Your task to perform on an android device: Open the calendar and show me this week's events? Image 0: 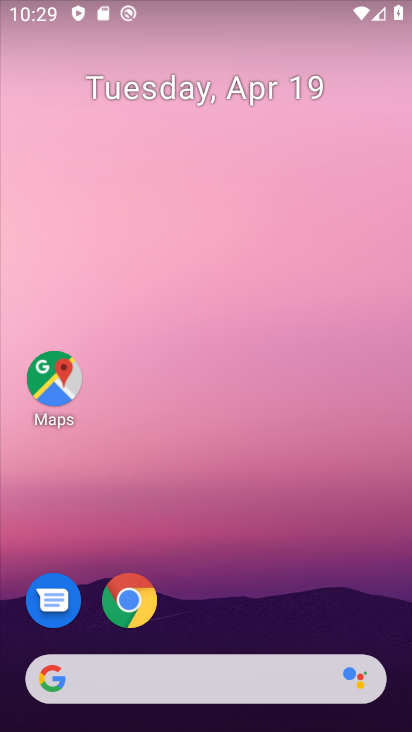
Step 0: drag from (217, 617) to (224, 94)
Your task to perform on an android device: Open the calendar and show me this week's events? Image 1: 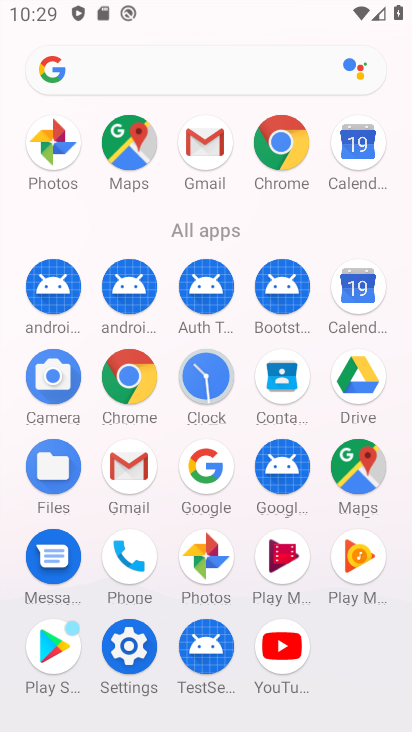
Step 1: click (370, 310)
Your task to perform on an android device: Open the calendar and show me this week's events? Image 2: 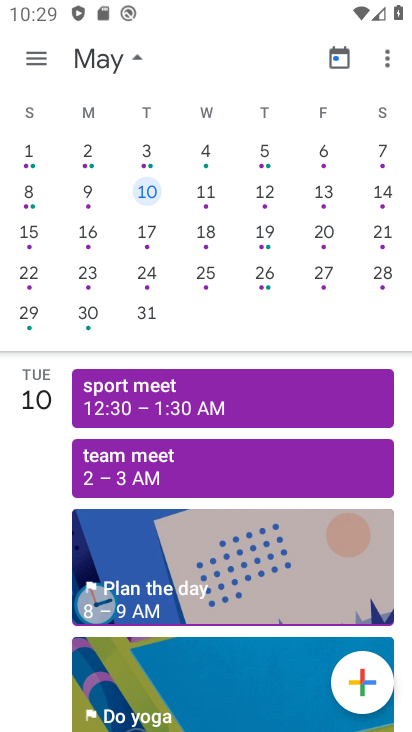
Step 2: click (371, 189)
Your task to perform on an android device: Open the calendar and show me this week's events? Image 3: 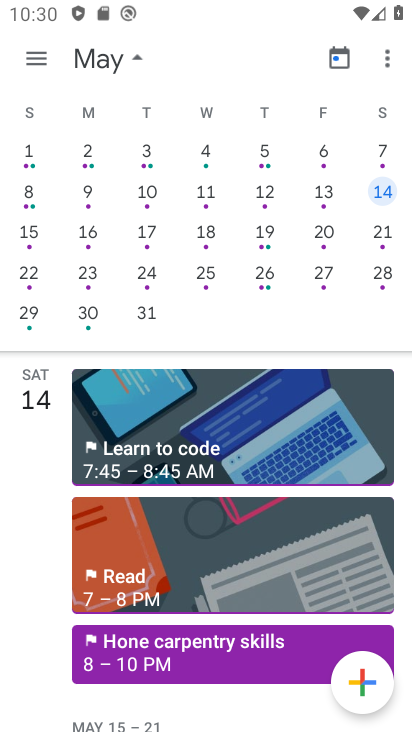
Step 3: click (317, 237)
Your task to perform on an android device: Open the calendar and show me this week's events? Image 4: 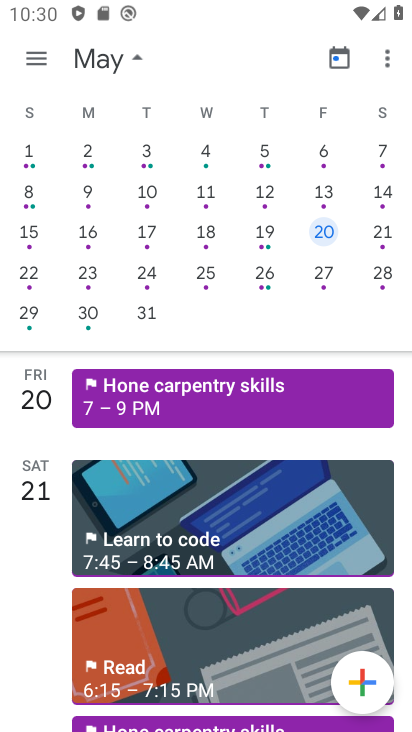
Step 4: click (260, 232)
Your task to perform on an android device: Open the calendar and show me this week's events? Image 5: 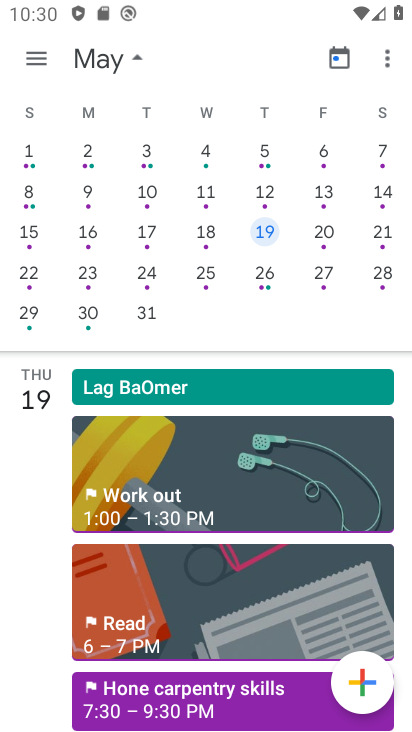
Step 5: task complete